Your task to perform on an android device: find photos in the google photos app Image 0: 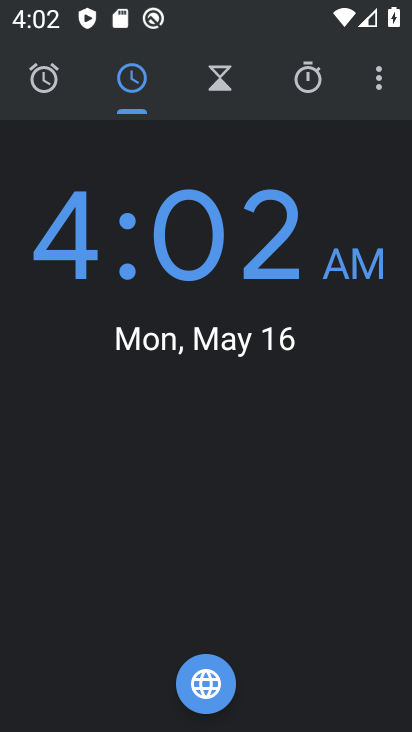
Step 0: press home button
Your task to perform on an android device: find photos in the google photos app Image 1: 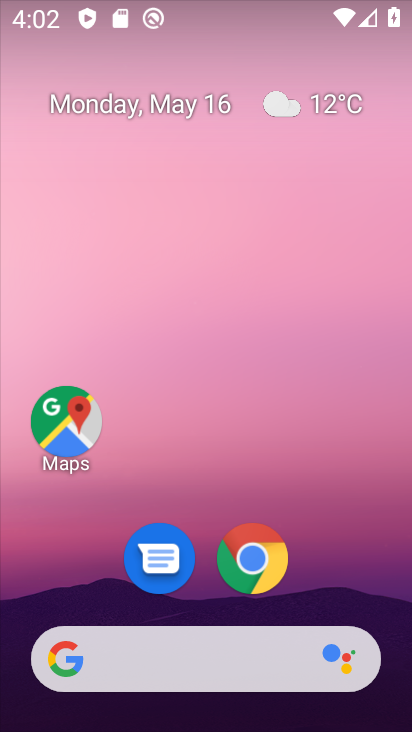
Step 1: drag from (219, 495) to (239, 115)
Your task to perform on an android device: find photos in the google photos app Image 2: 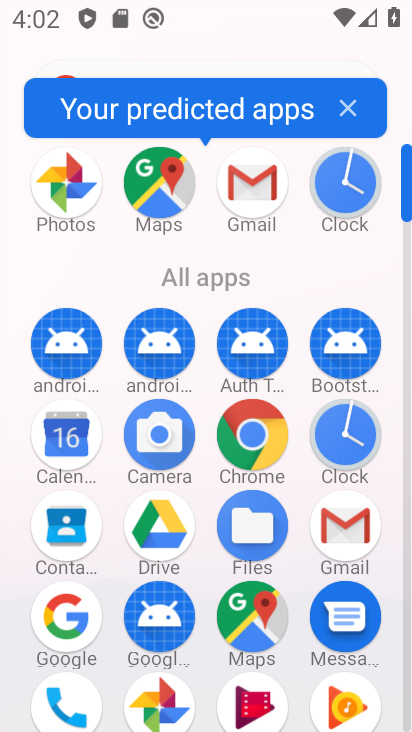
Step 2: click (52, 200)
Your task to perform on an android device: find photos in the google photos app Image 3: 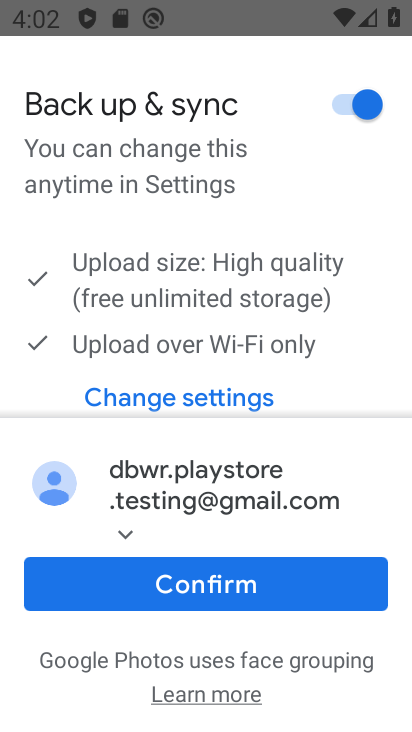
Step 3: click (259, 580)
Your task to perform on an android device: find photos in the google photos app Image 4: 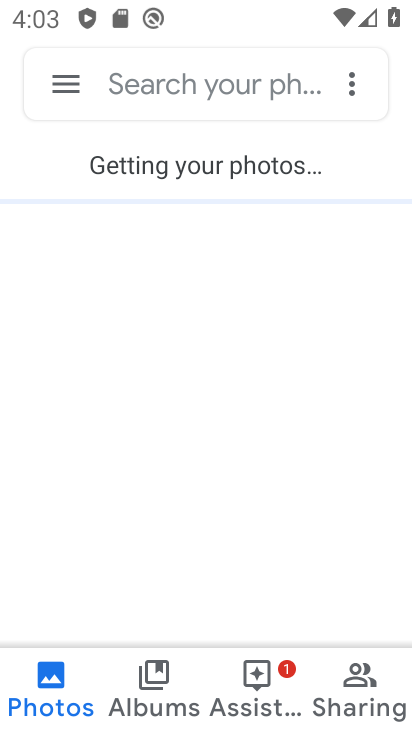
Step 4: click (138, 703)
Your task to perform on an android device: find photos in the google photos app Image 5: 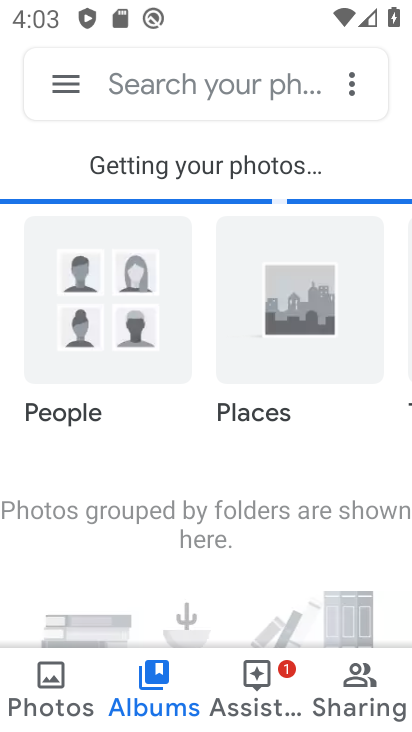
Step 5: click (66, 707)
Your task to perform on an android device: find photos in the google photos app Image 6: 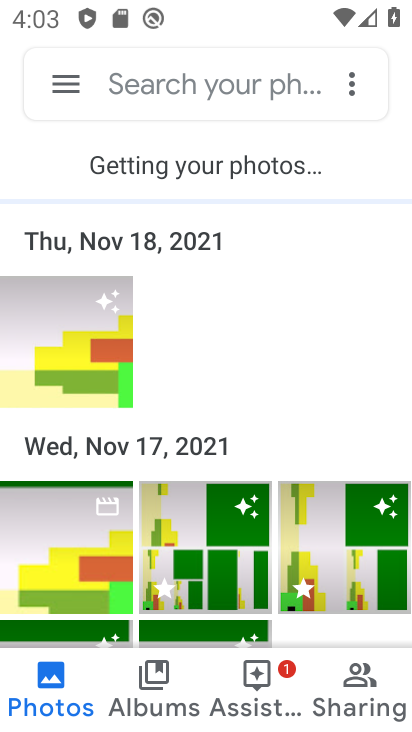
Step 6: task complete